Your task to perform on an android device: empty trash in the gmail app Image 0: 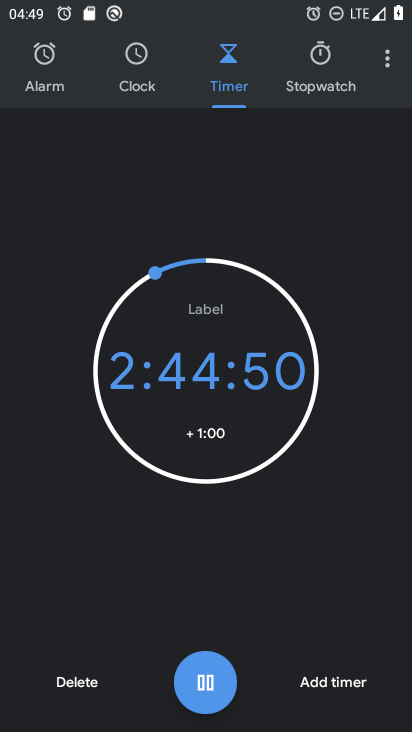
Step 0: press home button
Your task to perform on an android device: empty trash in the gmail app Image 1: 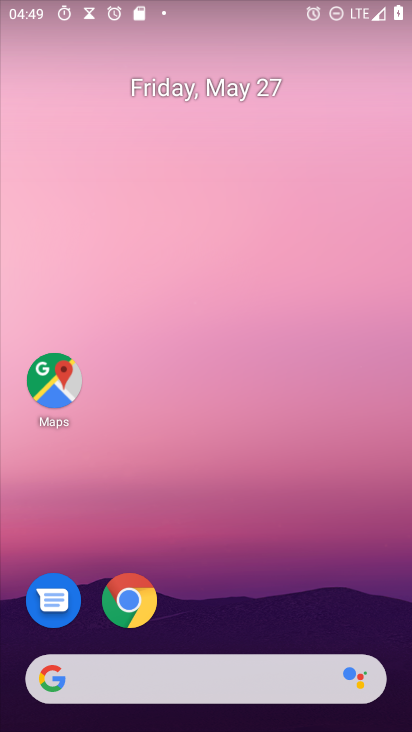
Step 1: drag from (181, 709) to (157, 205)
Your task to perform on an android device: empty trash in the gmail app Image 2: 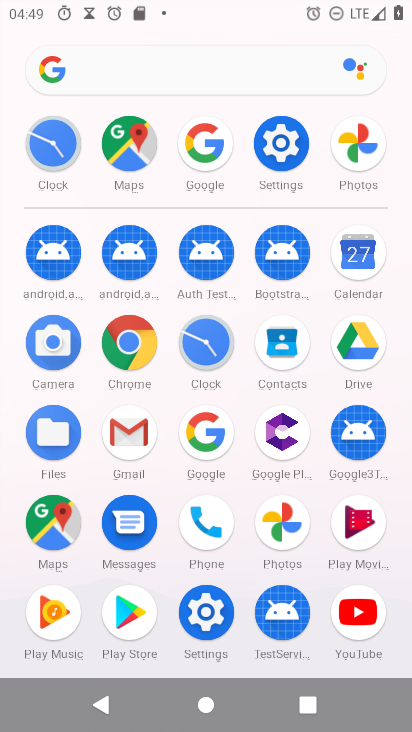
Step 2: click (119, 443)
Your task to perform on an android device: empty trash in the gmail app Image 3: 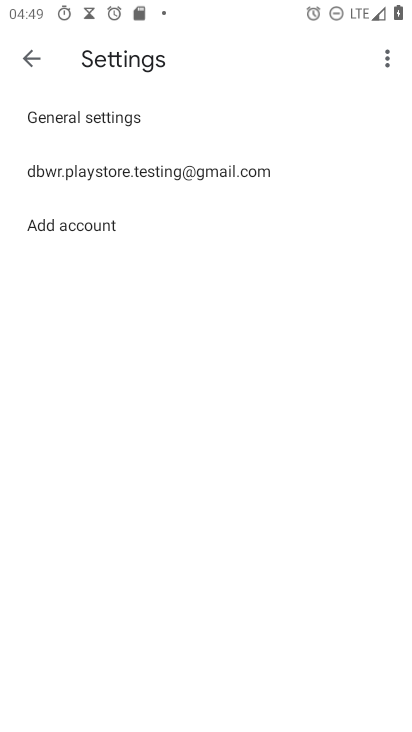
Step 3: click (31, 51)
Your task to perform on an android device: empty trash in the gmail app Image 4: 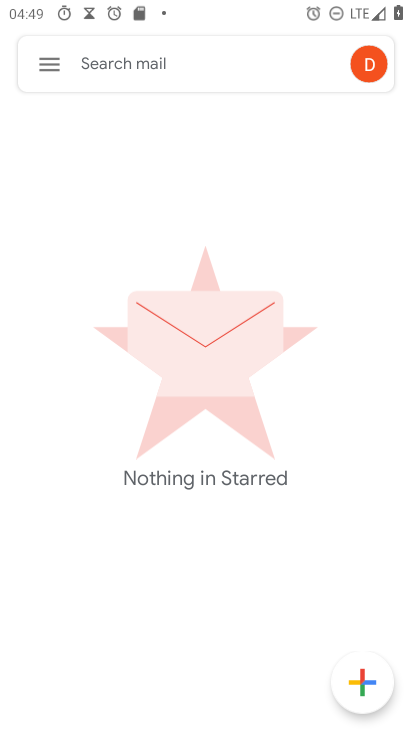
Step 4: click (53, 57)
Your task to perform on an android device: empty trash in the gmail app Image 5: 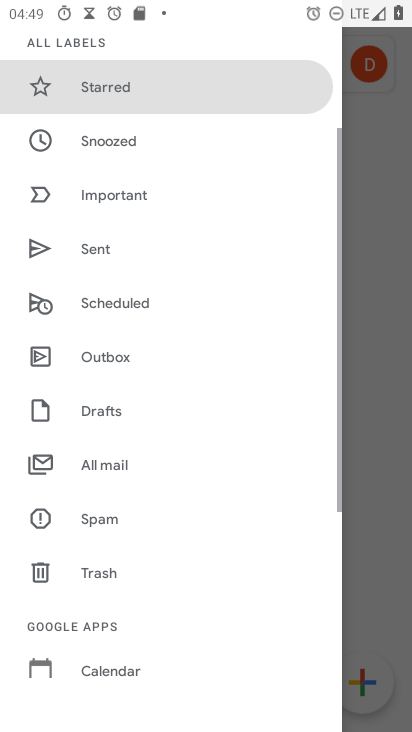
Step 5: click (94, 568)
Your task to perform on an android device: empty trash in the gmail app Image 6: 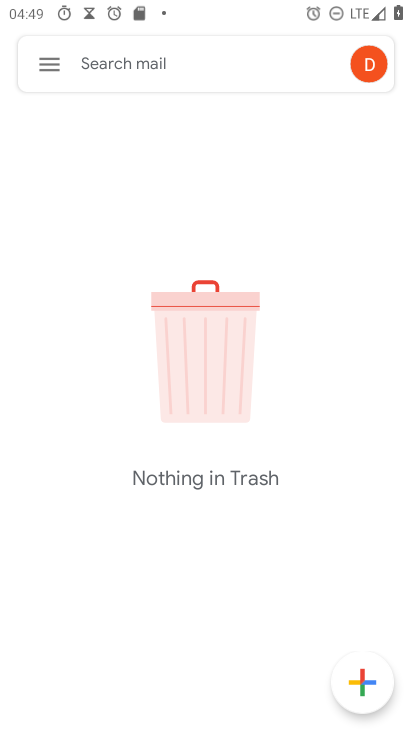
Step 6: task complete